Your task to perform on an android device: delete a single message in the gmail app Image 0: 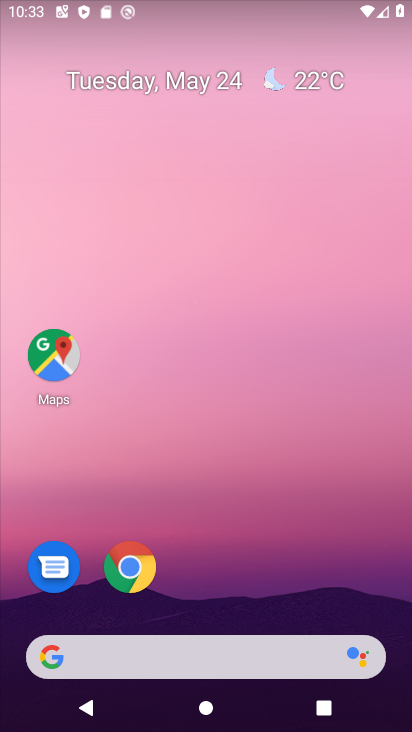
Step 0: drag from (212, 612) to (404, 271)
Your task to perform on an android device: delete a single message in the gmail app Image 1: 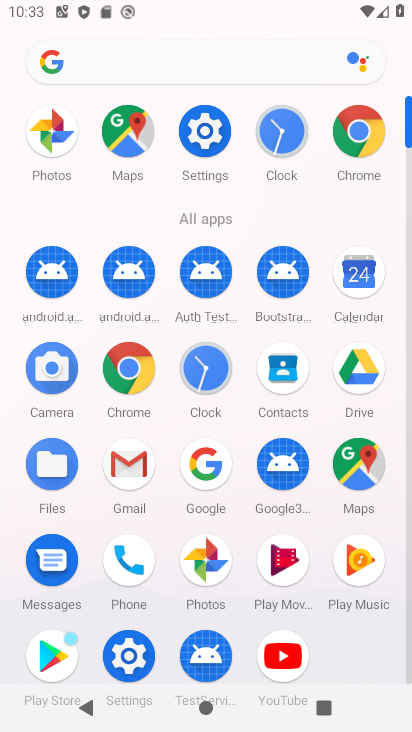
Step 1: click (119, 455)
Your task to perform on an android device: delete a single message in the gmail app Image 2: 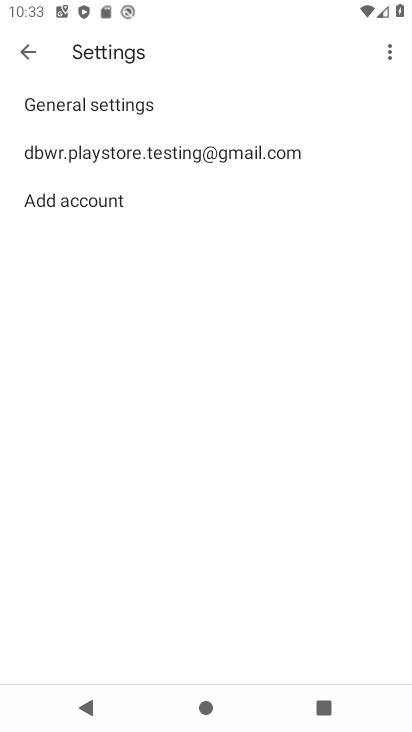
Step 2: click (21, 56)
Your task to perform on an android device: delete a single message in the gmail app Image 3: 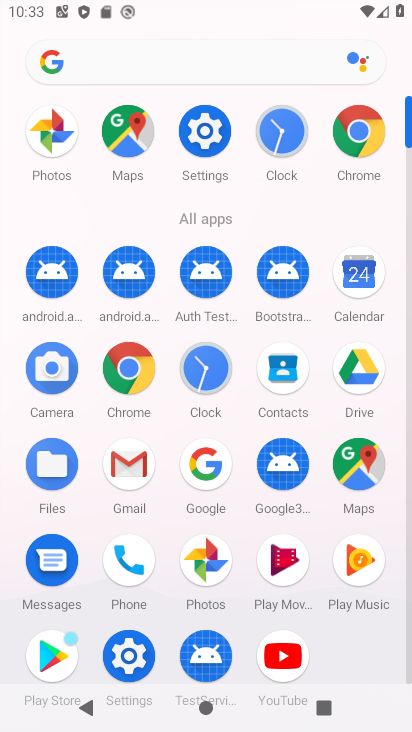
Step 3: click (130, 455)
Your task to perform on an android device: delete a single message in the gmail app Image 4: 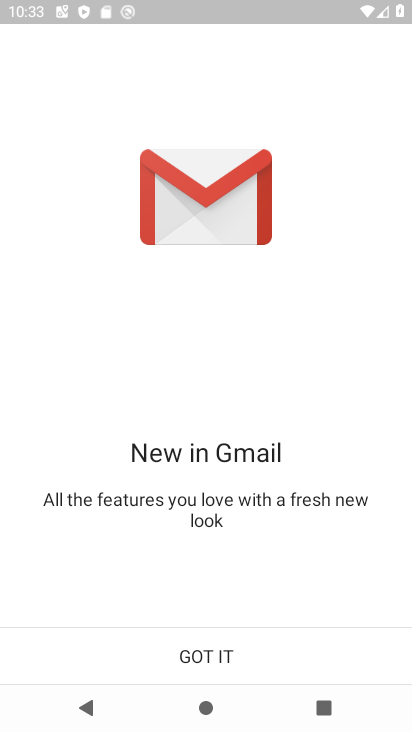
Step 4: click (269, 666)
Your task to perform on an android device: delete a single message in the gmail app Image 5: 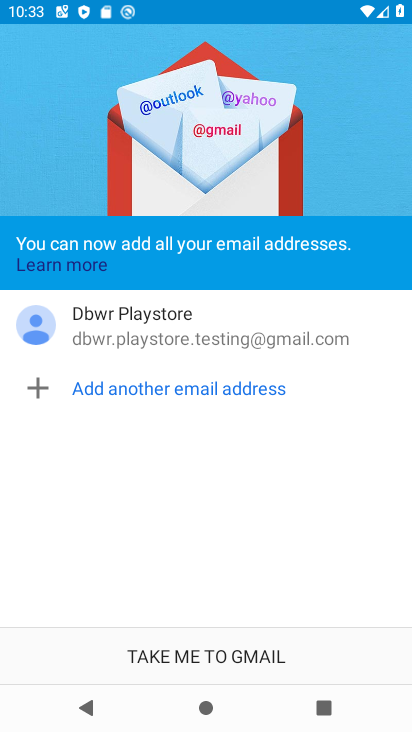
Step 5: click (269, 666)
Your task to perform on an android device: delete a single message in the gmail app Image 6: 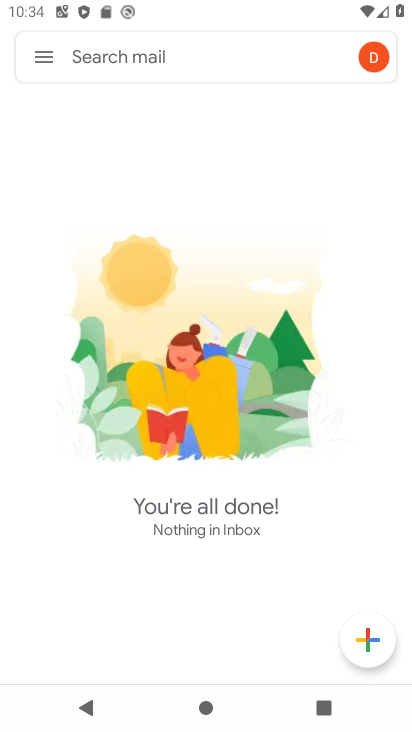
Step 6: task complete